Your task to perform on an android device: Search for "jbl charge 4" on ebay.com, select the first entry, and add it to the cart. Image 0: 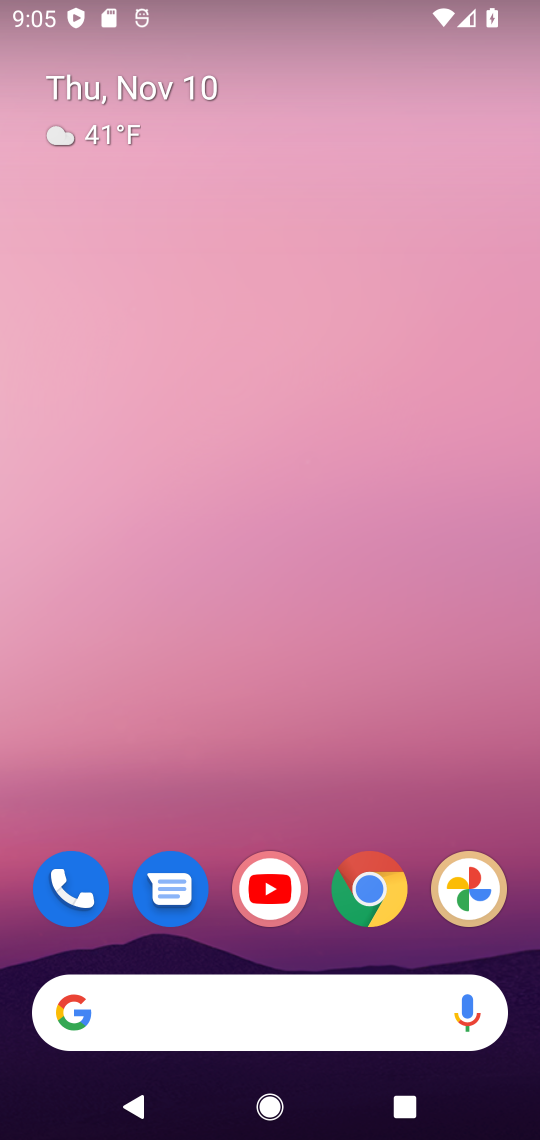
Step 0: click (379, 885)
Your task to perform on an android device: Search for "jbl charge 4" on ebay.com, select the first entry, and add it to the cart. Image 1: 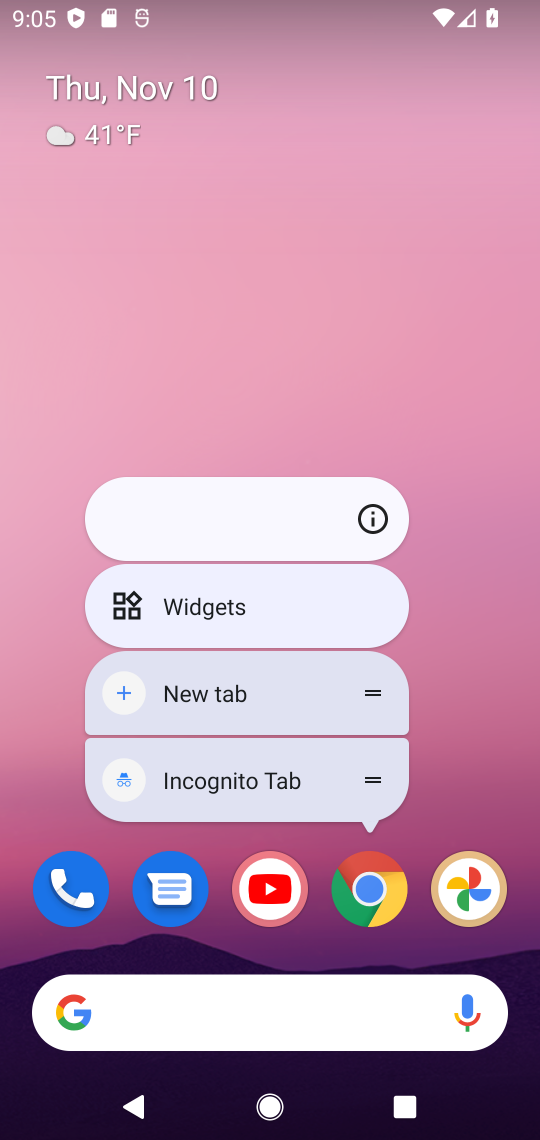
Step 1: click (385, 878)
Your task to perform on an android device: Search for "jbl charge 4" on ebay.com, select the first entry, and add it to the cart. Image 2: 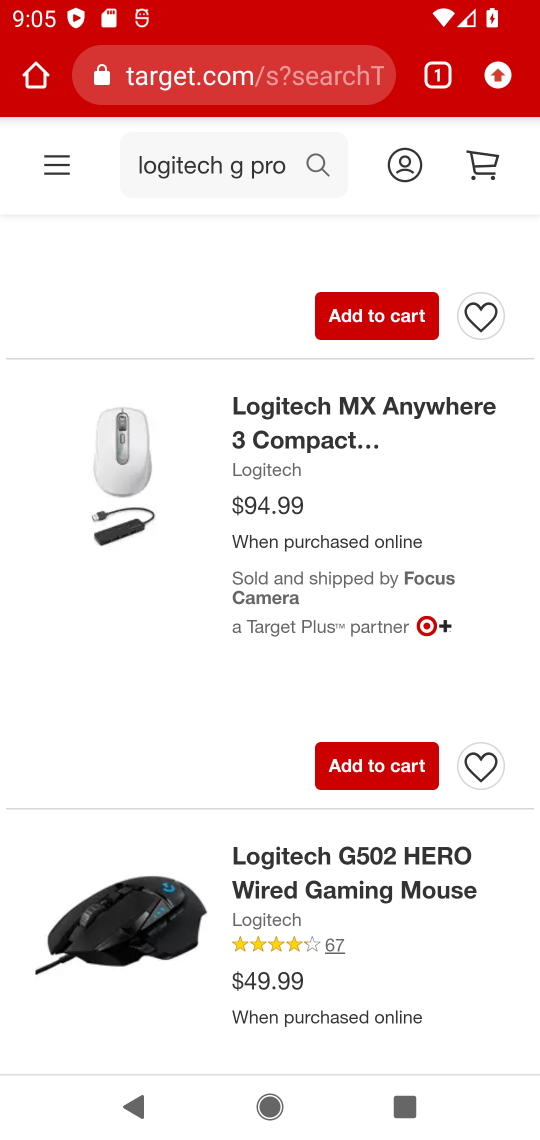
Step 2: click (270, 77)
Your task to perform on an android device: Search for "jbl charge 4" on ebay.com, select the first entry, and add it to the cart. Image 3: 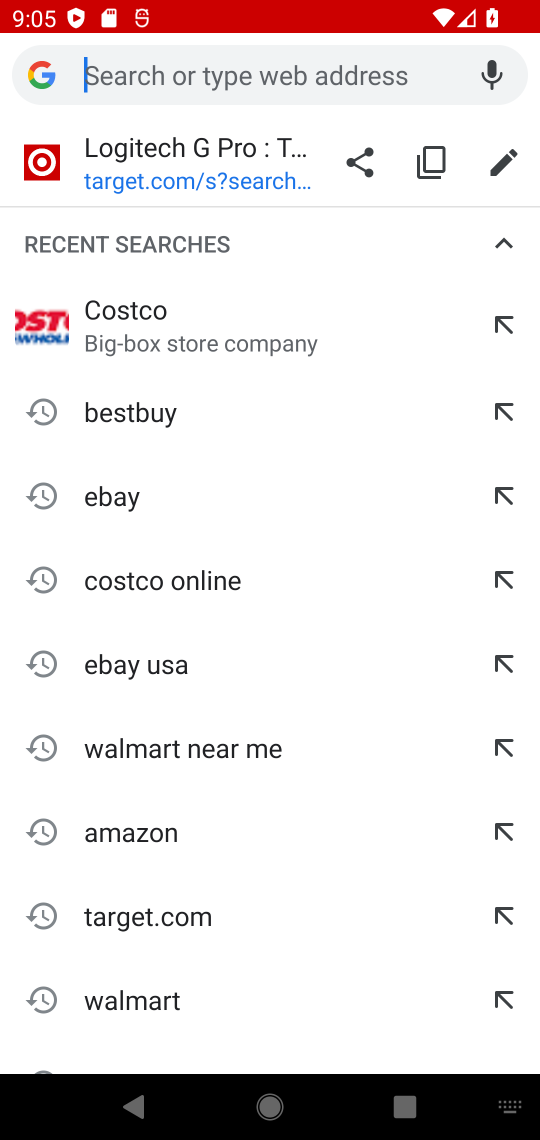
Step 3: type "ebay.com"
Your task to perform on an android device: Search for "jbl charge 4" on ebay.com, select the first entry, and add it to the cart. Image 4: 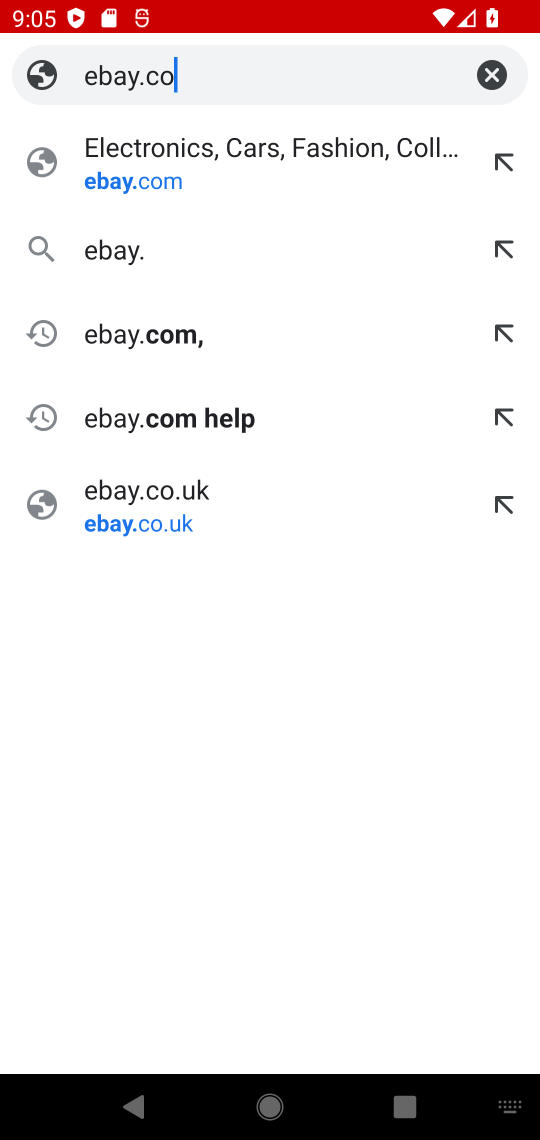
Step 4: press enter
Your task to perform on an android device: Search for "jbl charge 4" on ebay.com, select the first entry, and add it to the cart. Image 5: 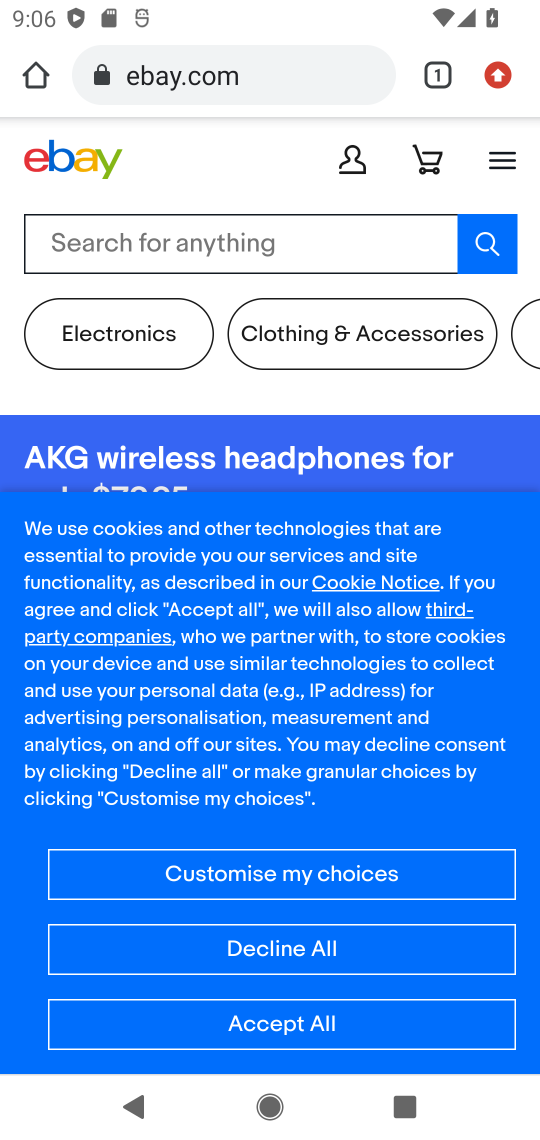
Step 5: click (386, 233)
Your task to perform on an android device: Search for "jbl charge 4" on ebay.com, select the first entry, and add it to the cart. Image 6: 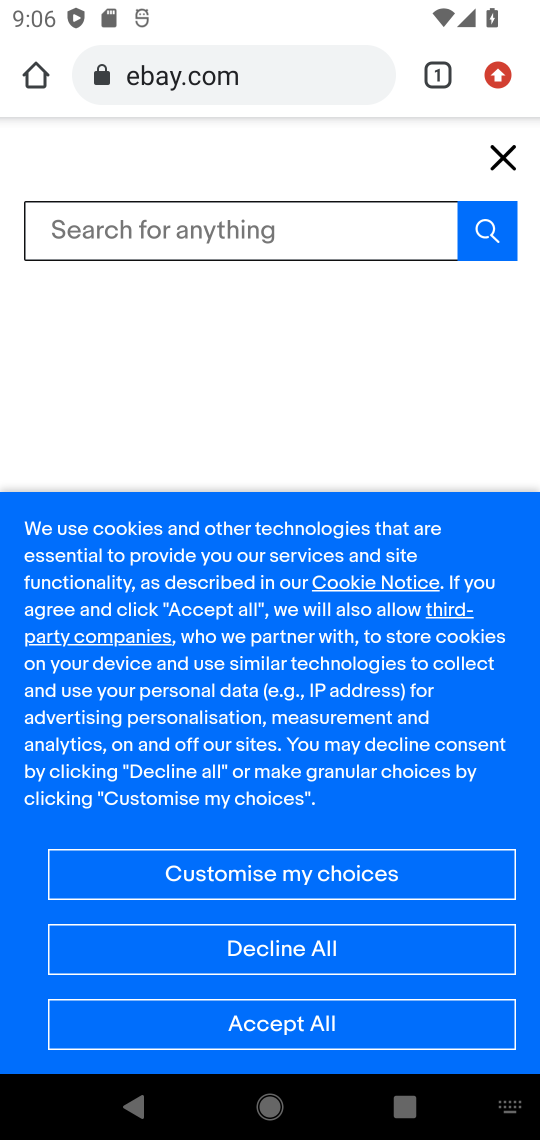
Step 6: type "jbl charge 4"
Your task to perform on an android device: Search for "jbl charge 4" on ebay.com, select the first entry, and add it to the cart. Image 7: 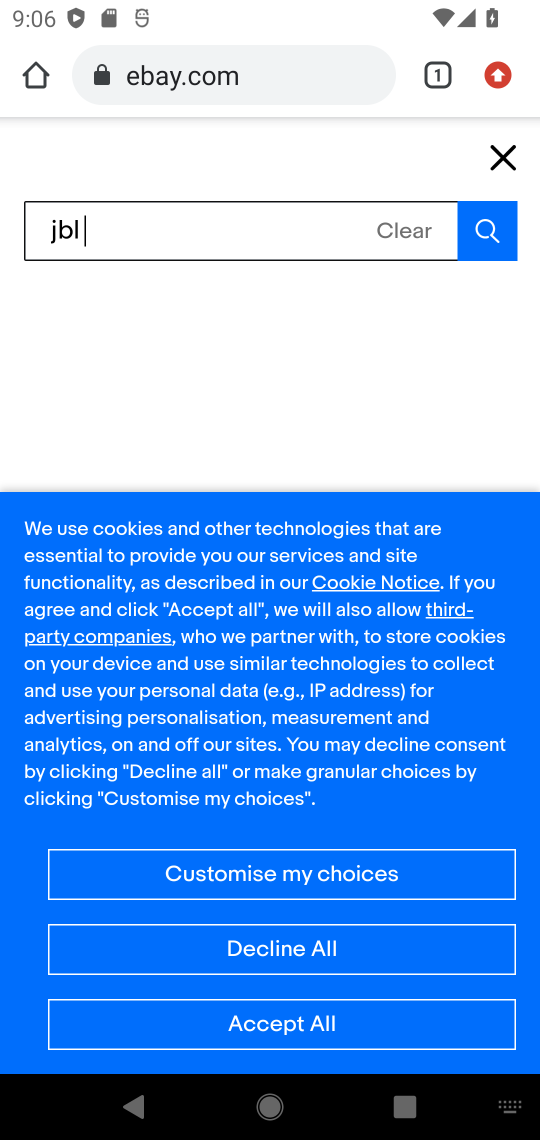
Step 7: press enter
Your task to perform on an android device: Search for "jbl charge 4" on ebay.com, select the first entry, and add it to the cart. Image 8: 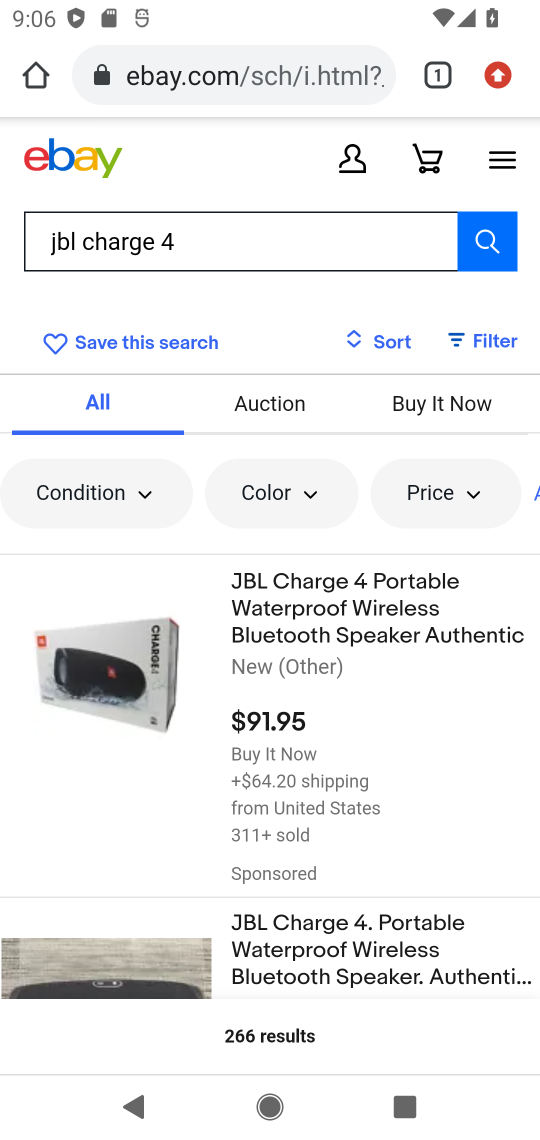
Step 8: click (374, 643)
Your task to perform on an android device: Search for "jbl charge 4" on ebay.com, select the first entry, and add it to the cart. Image 9: 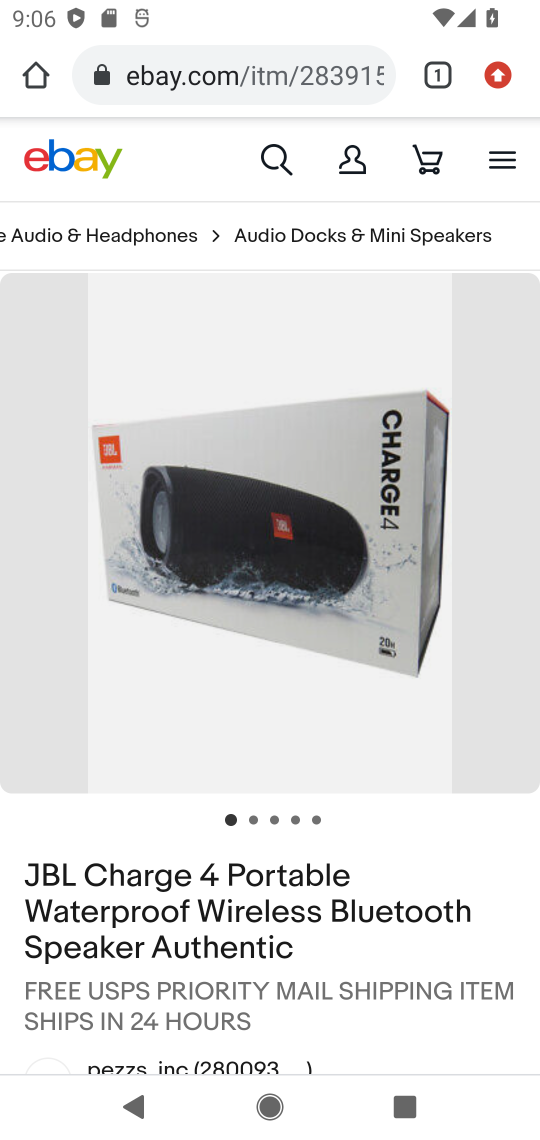
Step 9: drag from (249, 978) to (467, 320)
Your task to perform on an android device: Search for "jbl charge 4" on ebay.com, select the first entry, and add it to the cart. Image 10: 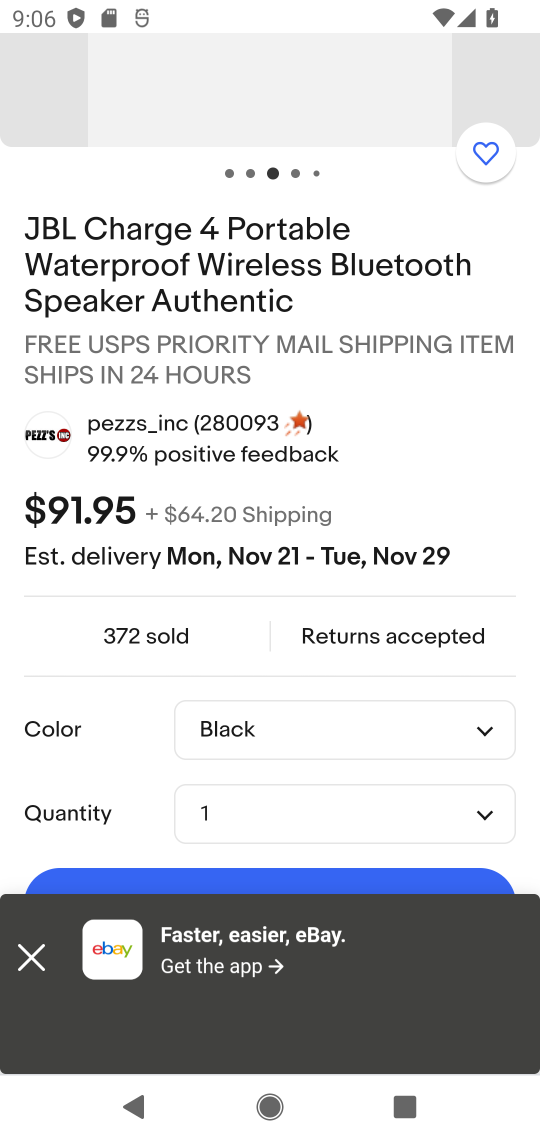
Step 10: drag from (336, 791) to (435, 437)
Your task to perform on an android device: Search for "jbl charge 4" on ebay.com, select the first entry, and add it to the cart. Image 11: 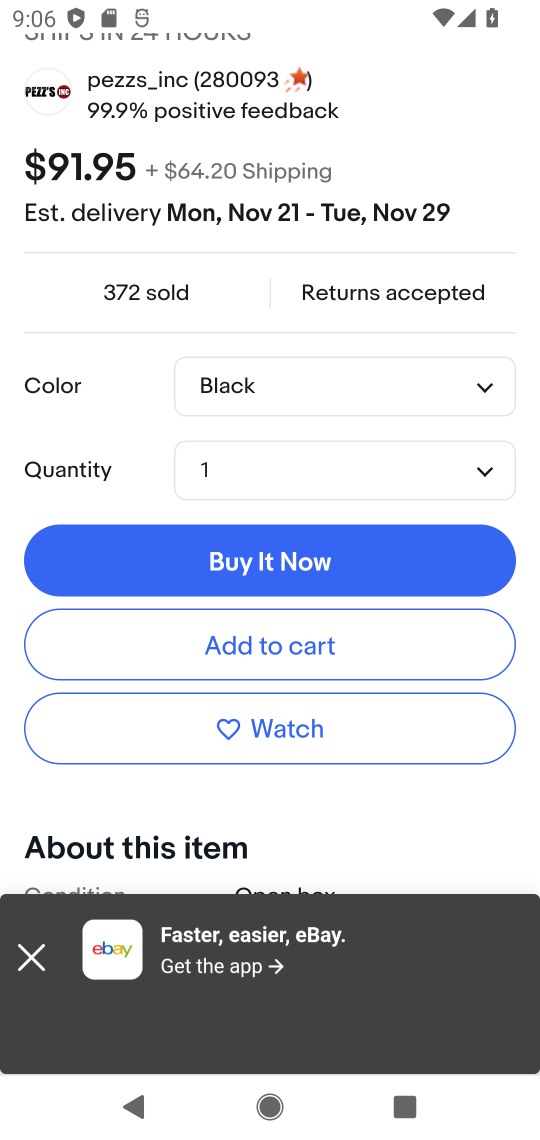
Step 11: click (269, 648)
Your task to perform on an android device: Search for "jbl charge 4" on ebay.com, select the first entry, and add it to the cart. Image 12: 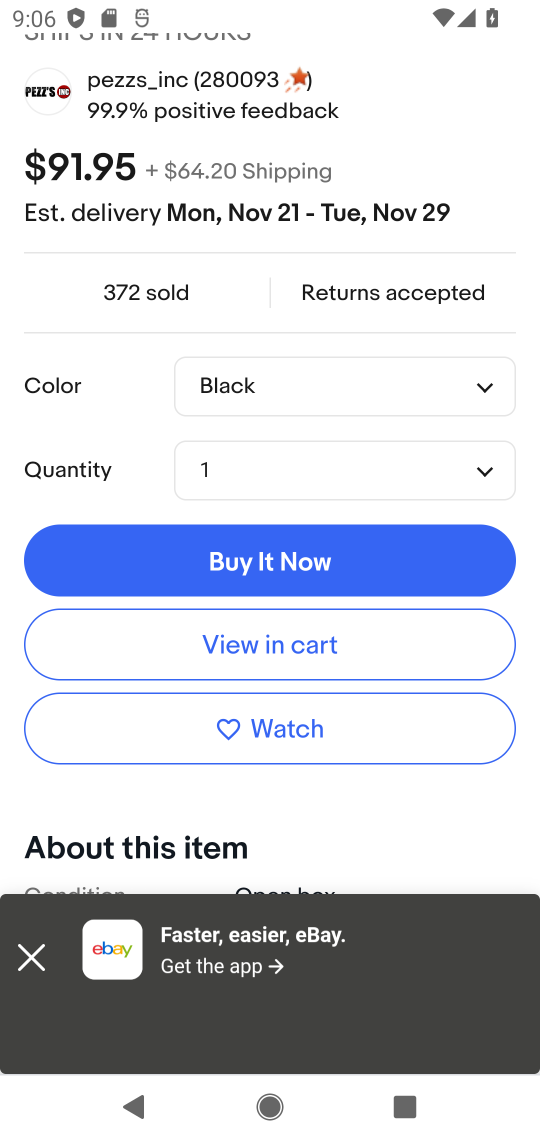
Step 12: click (272, 644)
Your task to perform on an android device: Search for "jbl charge 4" on ebay.com, select the first entry, and add it to the cart. Image 13: 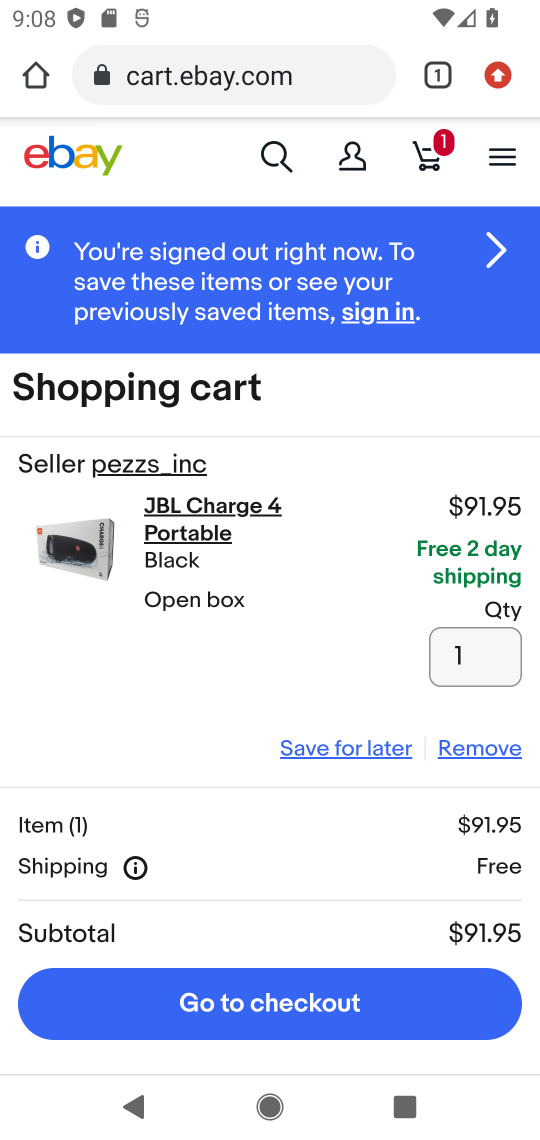
Step 13: task complete